Your task to perform on an android device: delete browsing data in the chrome app Image 0: 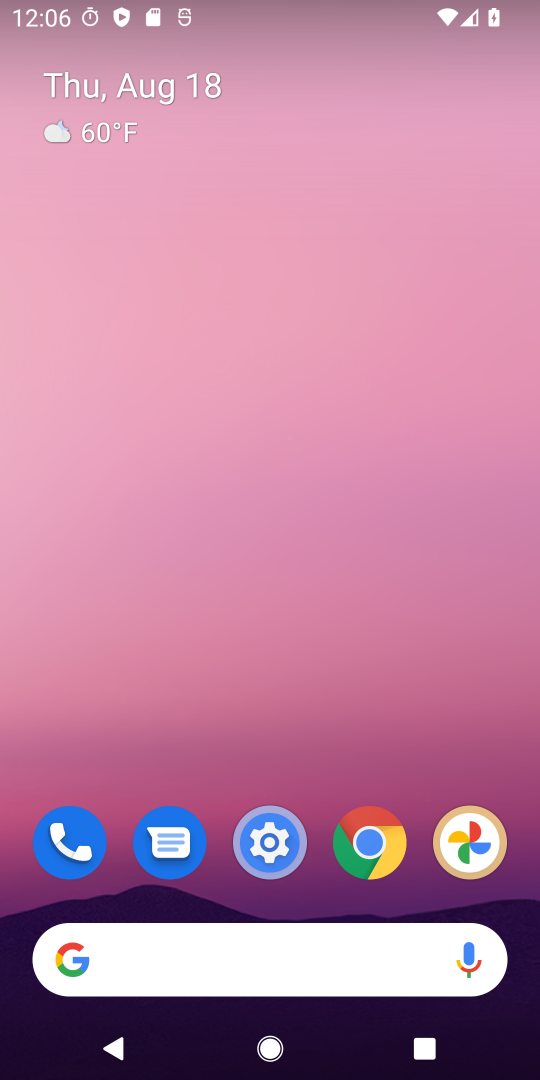
Step 0: click (379, 844)
Your task to perform on an android device: delete browsing data in the chrome app Image 1: 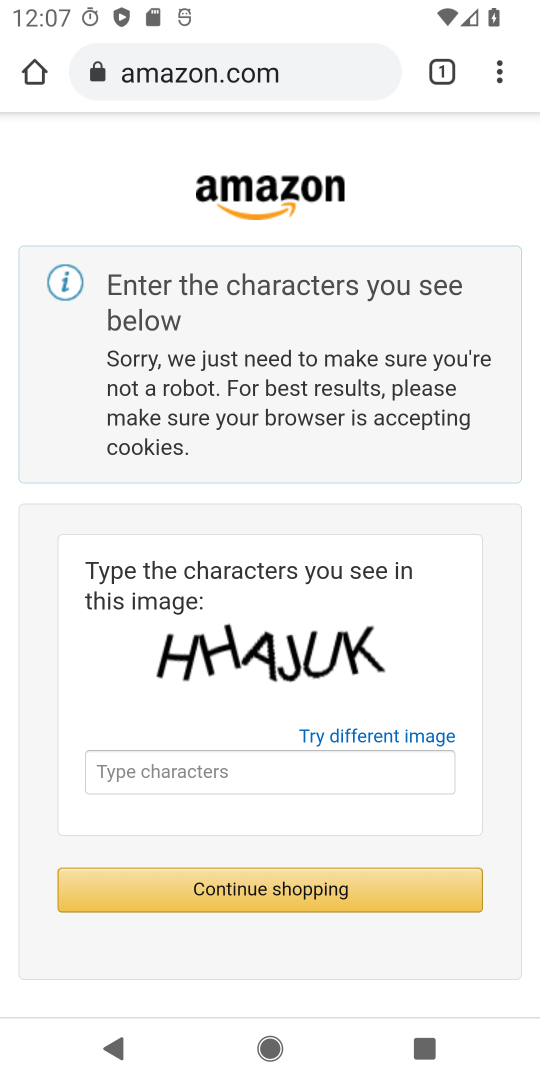
Step 1: click (507, 66)
Your task to perform on an android device: delete browsing data in the chrome app Image 2: 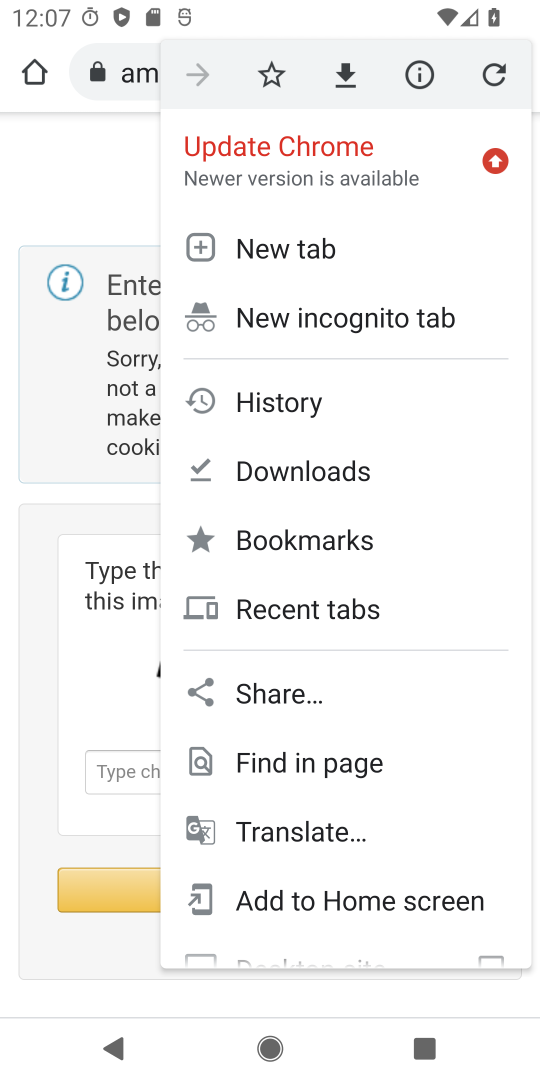
Step 2: drag from (298, 935) to (373, 237)
Your task to perform on an android device: delete browsing data in the chrome app Image 3: 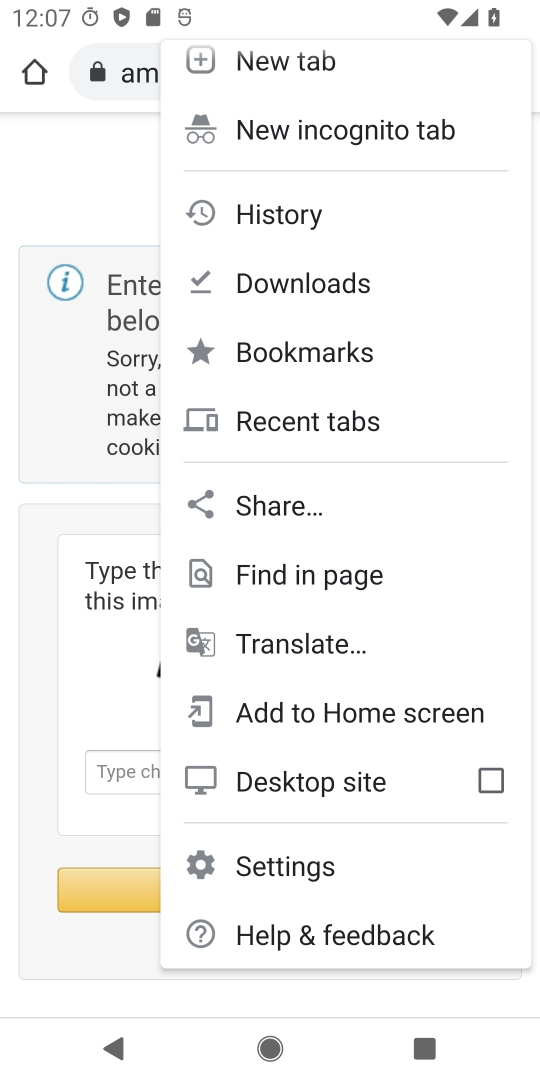
Step 3: click (336, 883)
Your task to perform on an android device: delete browsing data in the chrome app Image 4: 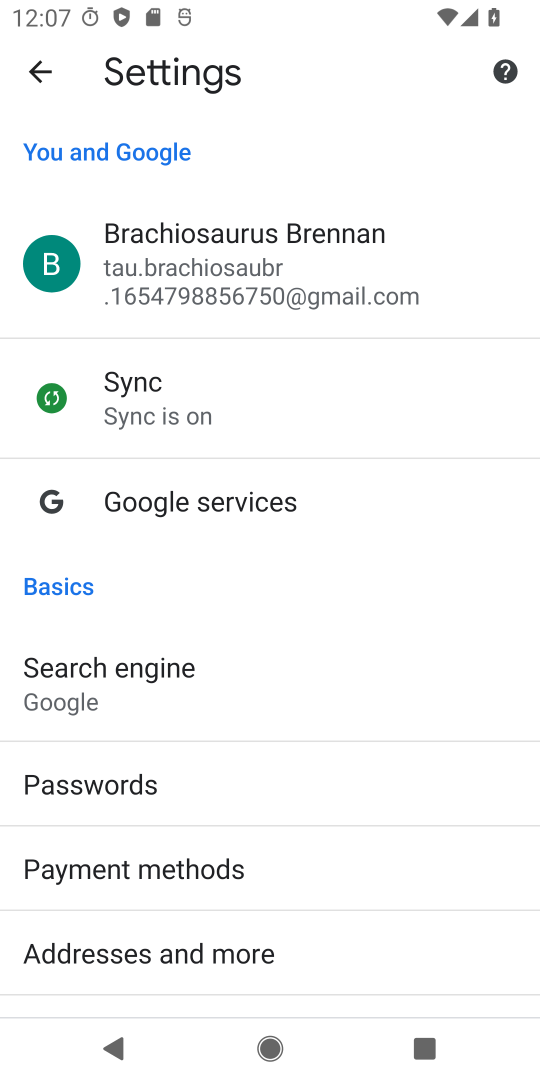
Step 4: click (52, 82)
Your task to perform on an android device: delete browsing data in the chrome app Image 5: 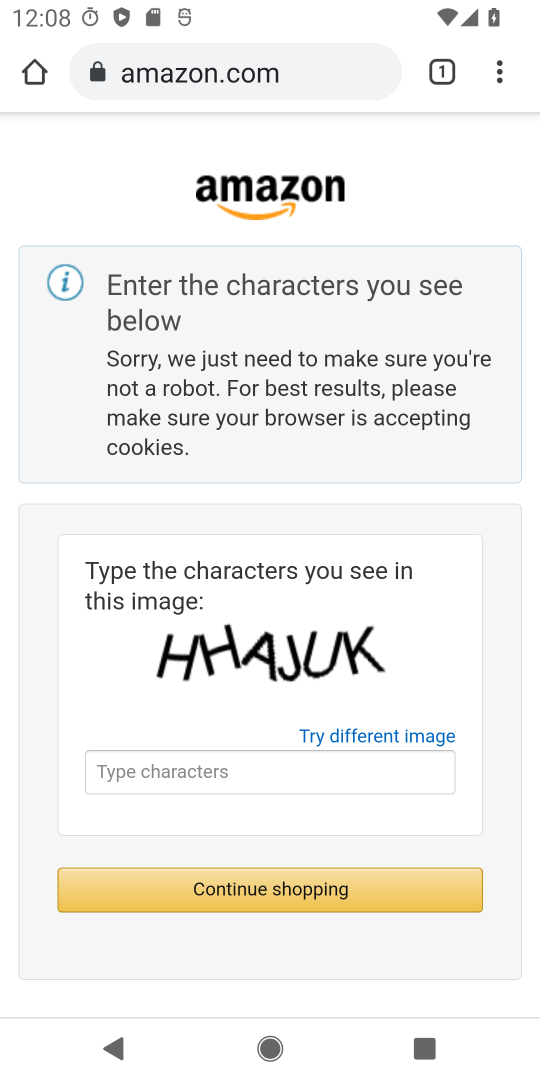
Step 5: click (488, 74)
Your task to perform on an android device: delete browsing data in the chrome app Image 6: 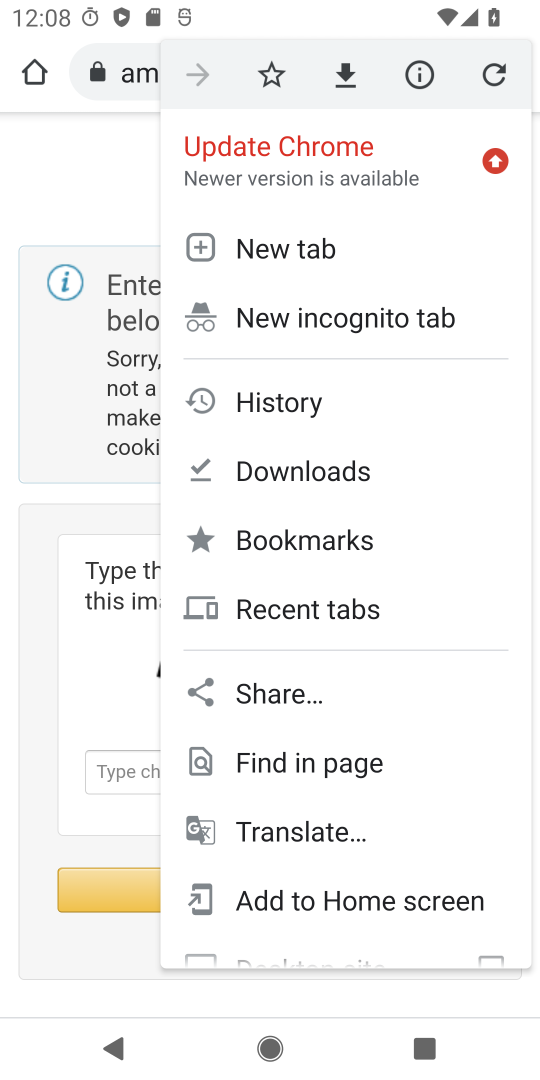
Step 6: click (298, 394)
Your task to perform on an android device: delete browsing data in the chrome app Image 7: 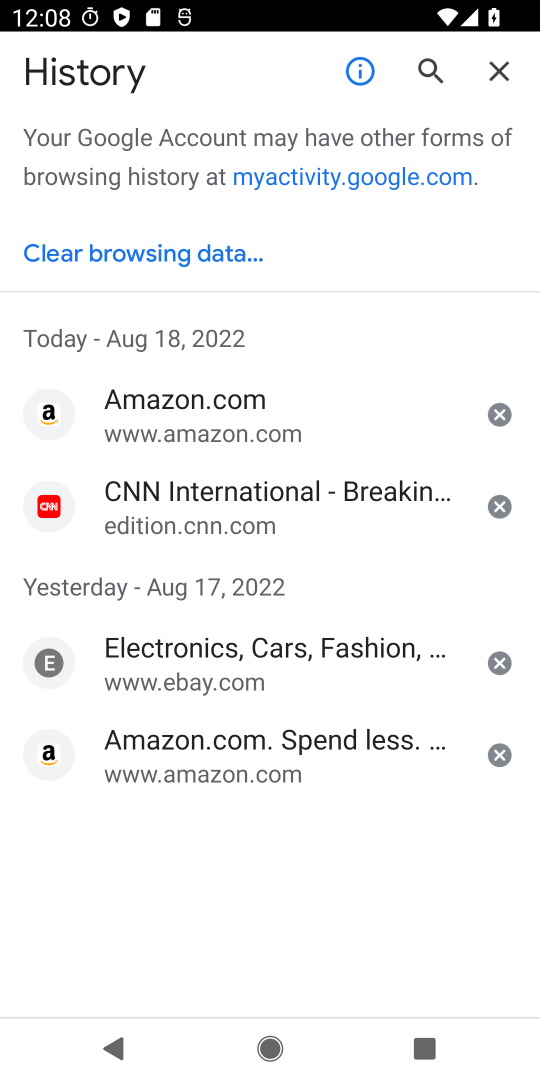
Step 7: click (136, 255)
Your task to perform on an android device: delete browsing data in the chrome app Image 8: 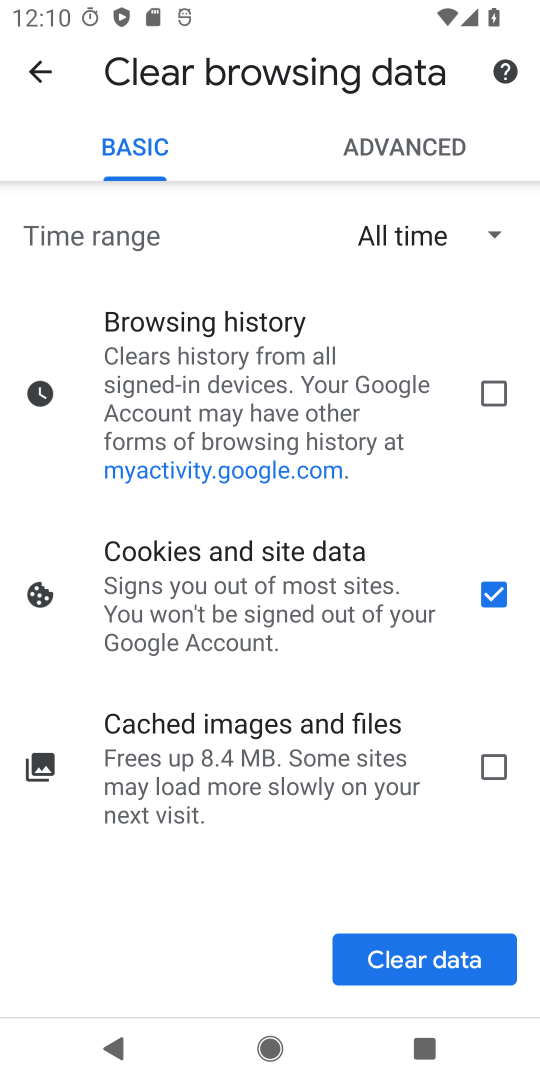
Step 8: click (486, 395)
Your task to perform on an android device: delete browsing data in the chrome app Image 9: 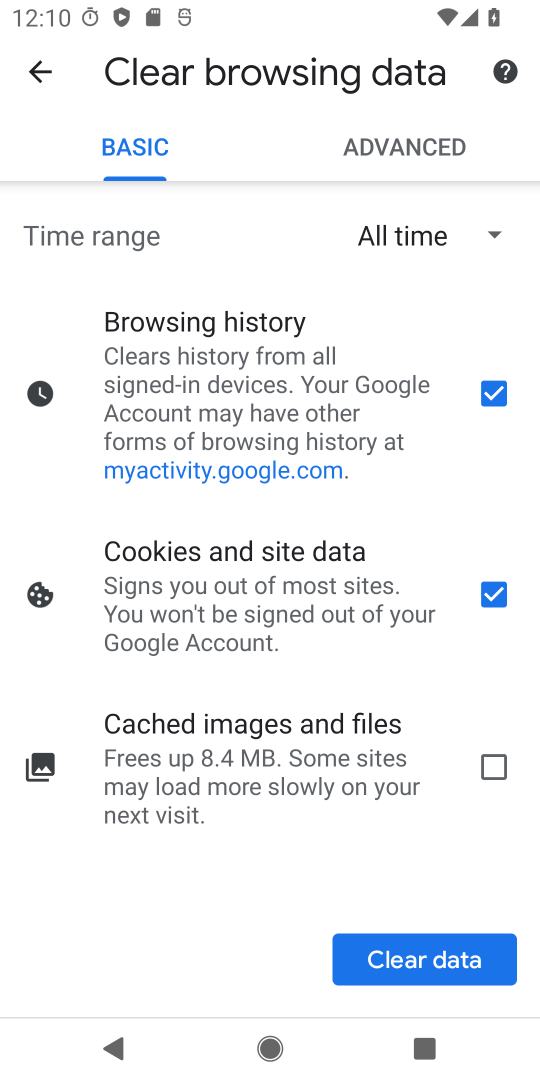
Step 9: click (495, 594)
Your task to perform on an android device: delete browsing data in the chrome app Image 10: 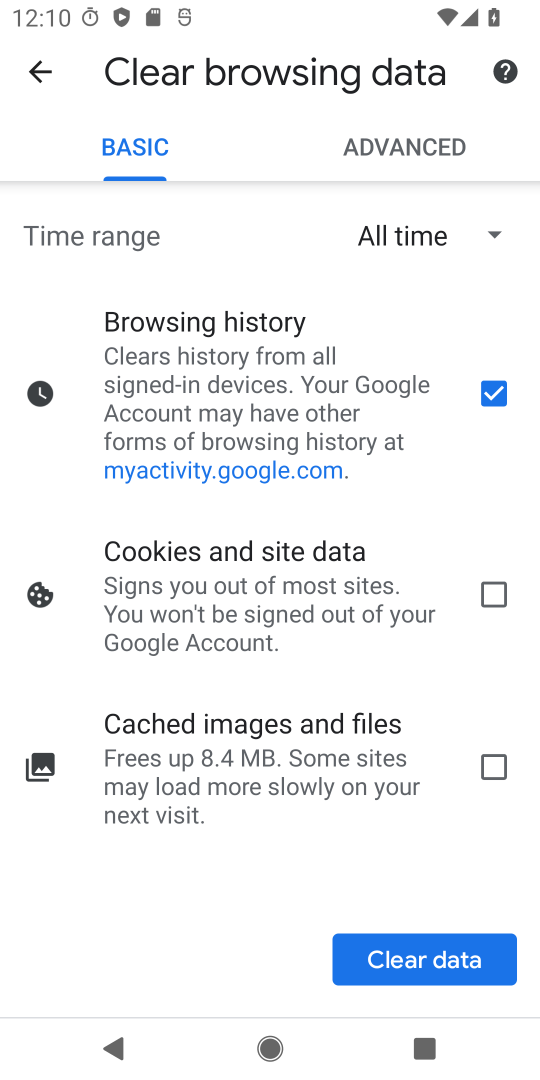
Step 10: click (445, 944)
Your task to perform on an android device: delete browsing data in the chrome app Image 11: 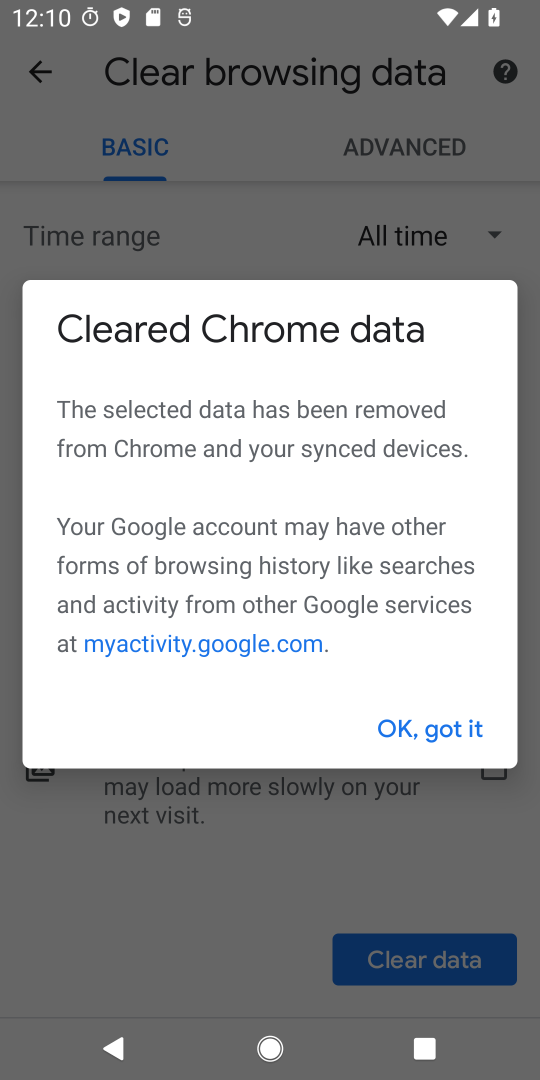
Step 11: click (427, 729)
Your task to perform on an android device: delete browsing data in the chrome app Image 12: 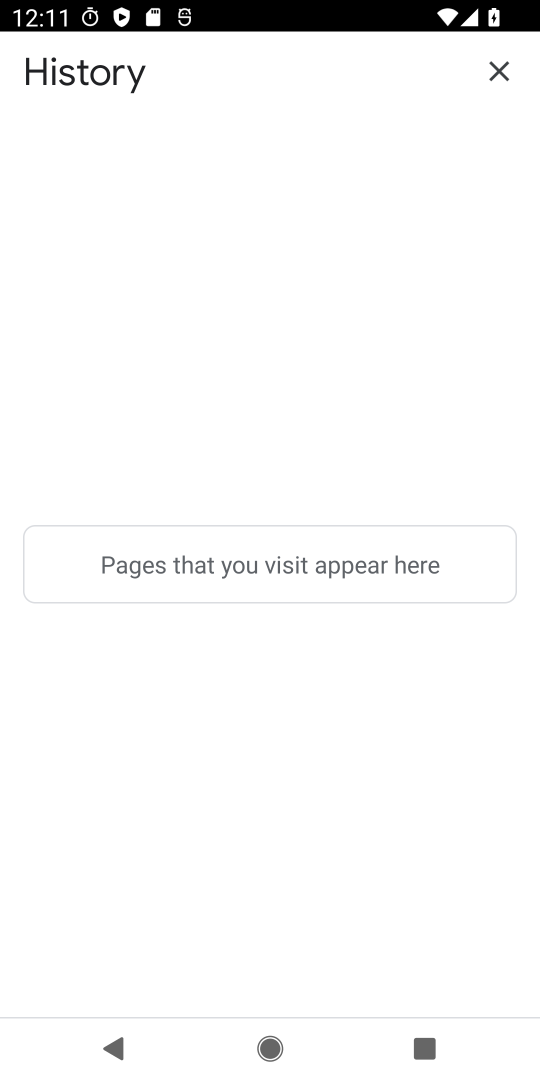
Step 12: click (495, 37)
Your task to perform on an android device: delete browsing data in the chrome app Image 13: 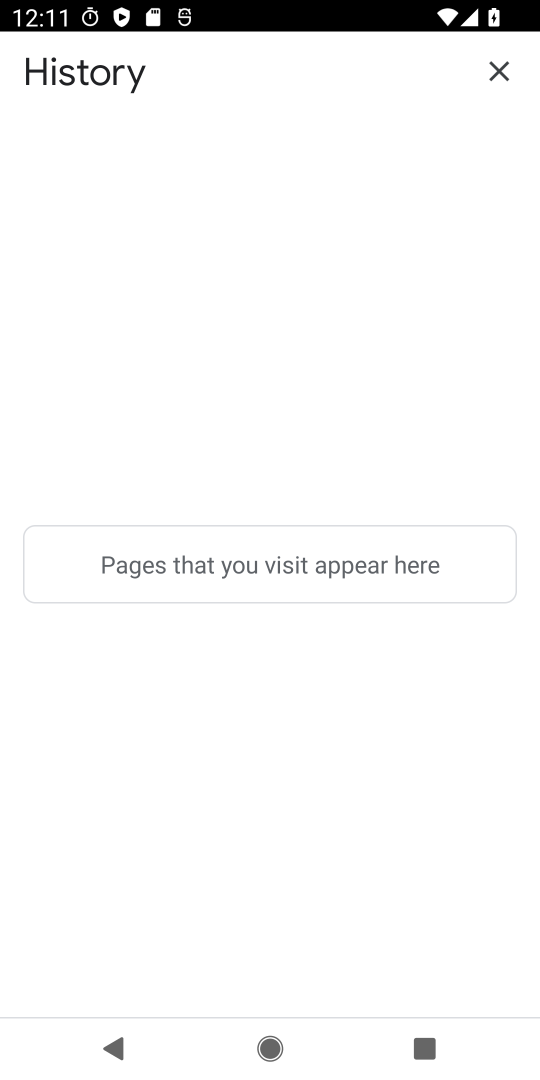
Step 13: click (499, 59)
Your task to perform on an android device: delete browsing data in the chrome app Image 14: 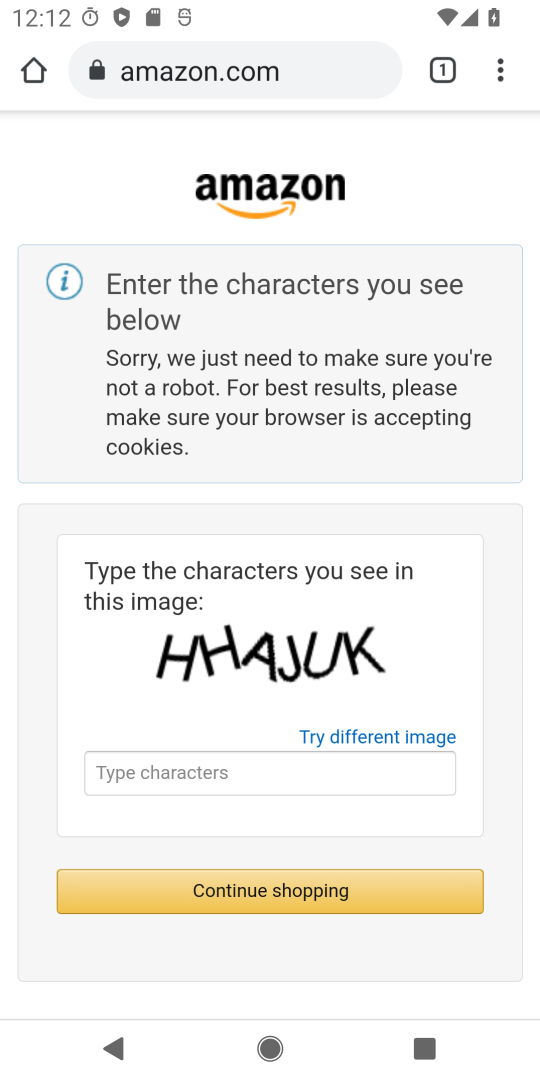
Step 14: task complete